Your task to perform on an android device: Open wifi settings Image 0: 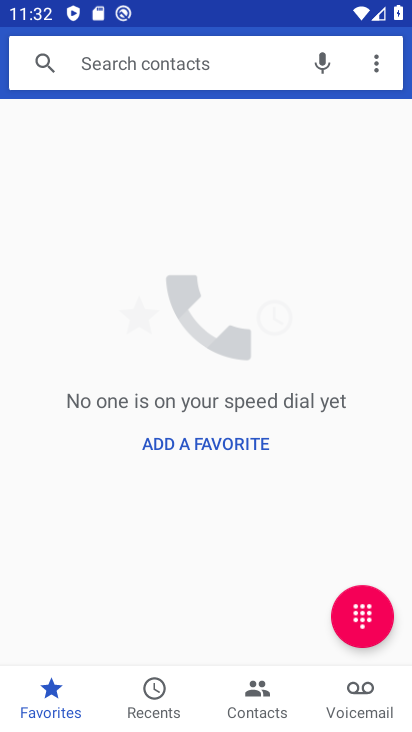
Step 0: drag from (318, 8) to (276, 376)
Your task to perform on an android device: Open wifi settings Image 1: 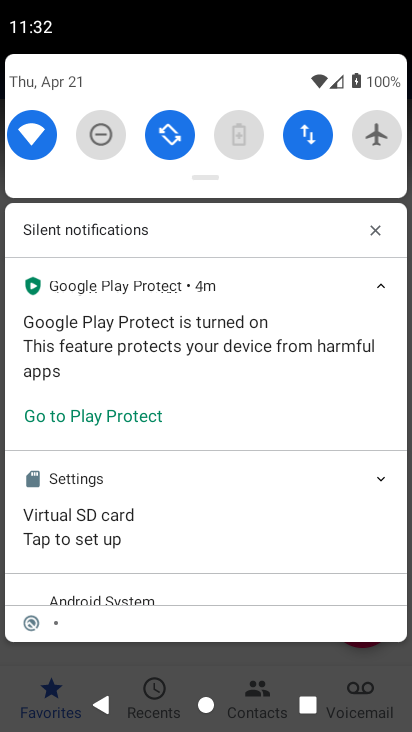
Step 1: click (46, 134)
Your task to perform on an android device: Open wifi settings Image 2: 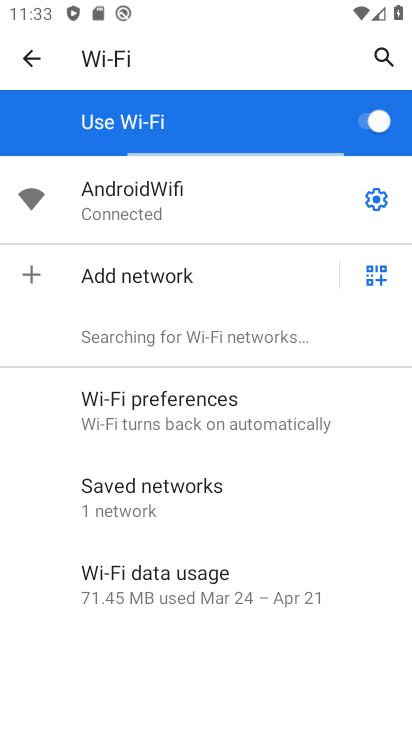
Step 2: task complete